Your task to perform on an android device: Open Android settings Image 0: 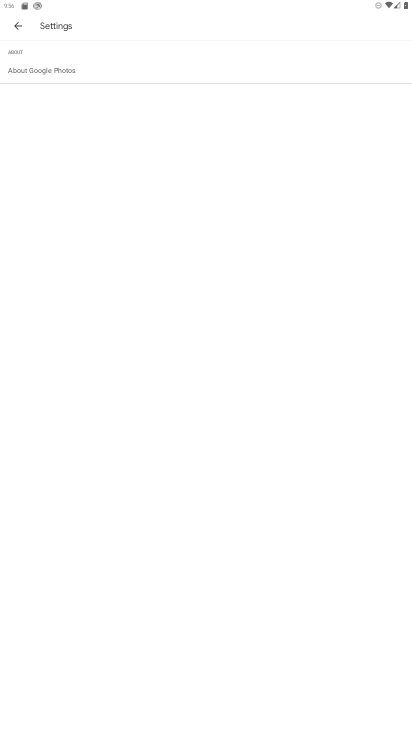
Step 0: press home button
Your task to perform on an android device: Open Android settings Image 1: 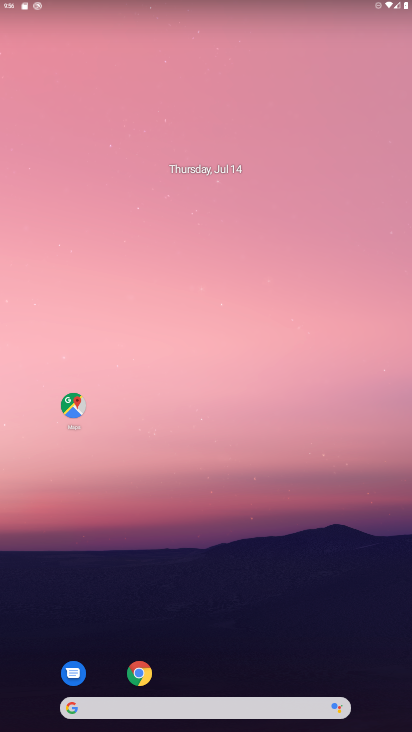
Step 1: drag from (322, 590) to (283, 5)
Your task to perform on an android device: Open Android settings Image 2: 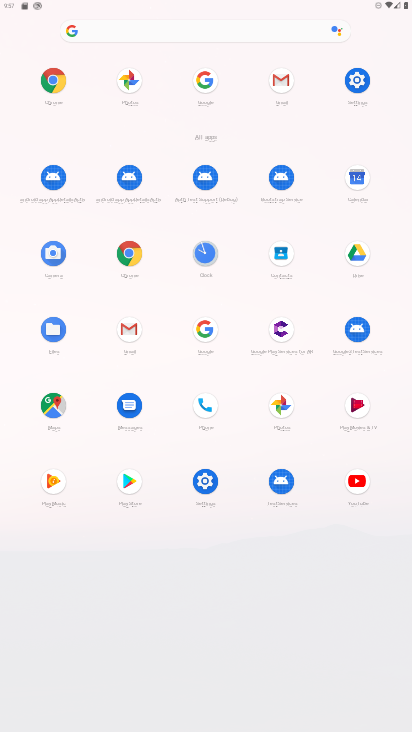
Step 2: click (361, 83)
Your task to perform on an android device: Open Android settings Image 3: 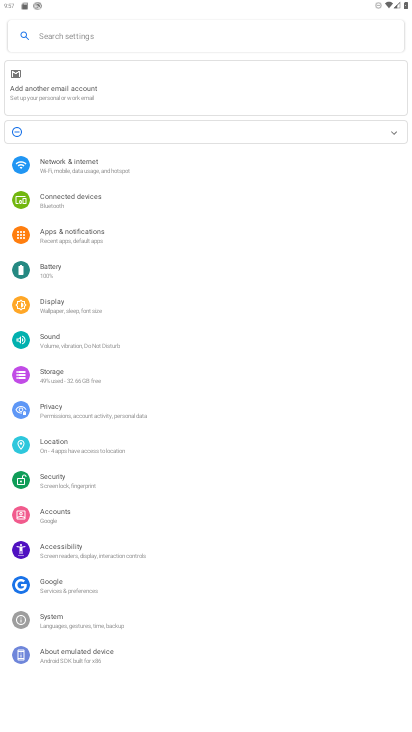
Step 3: task complete